Your task to perform on an android device: Open the map Image 0: 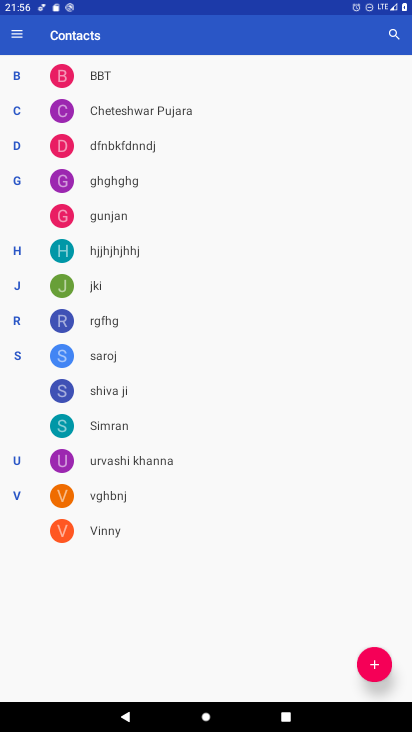
Step 0: press home button
Your task to perform on an android device: Open the map Image 1: 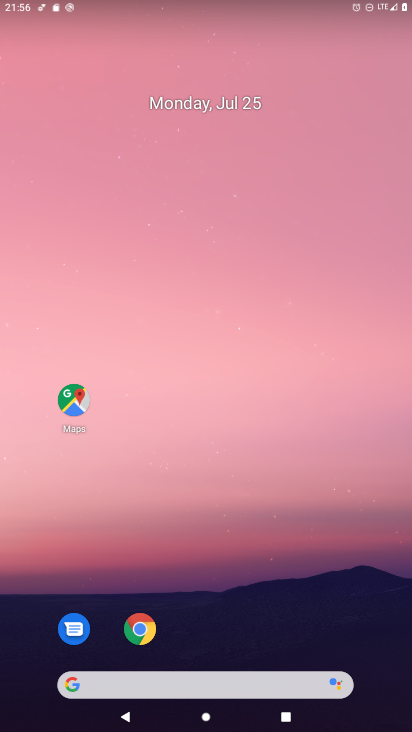
Step 1: click (73, 400)
Your task to perform on an android device: Open the map Image 2: 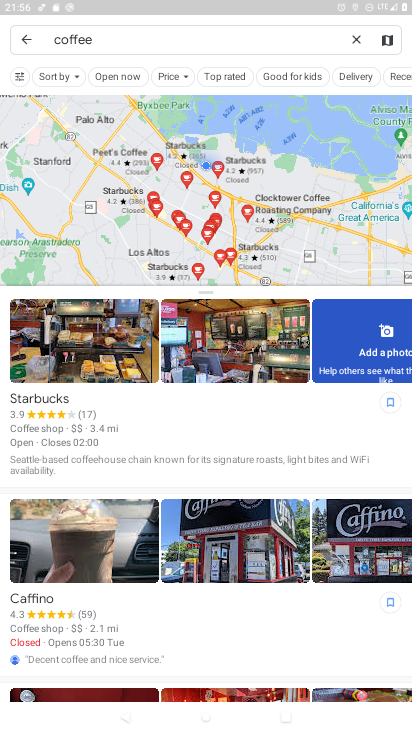
Step 2: task complete